Your task to perform on an android device: create a new album in the google photos Image 0: 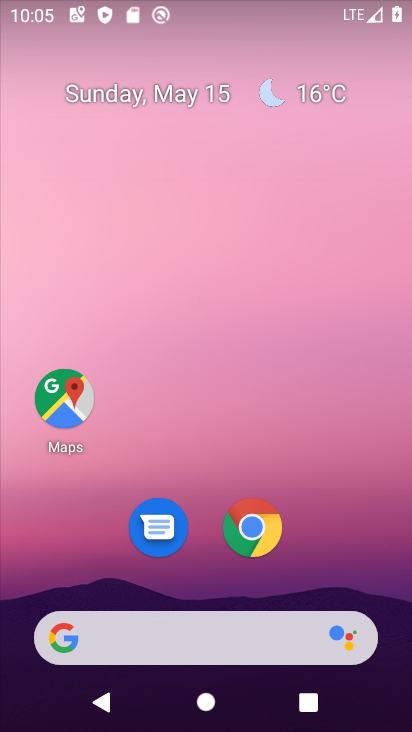
Step 0: drag from (382, 546) to (381, 20)
Your task to perform on an android device: create a new album in the google photos Image 1: 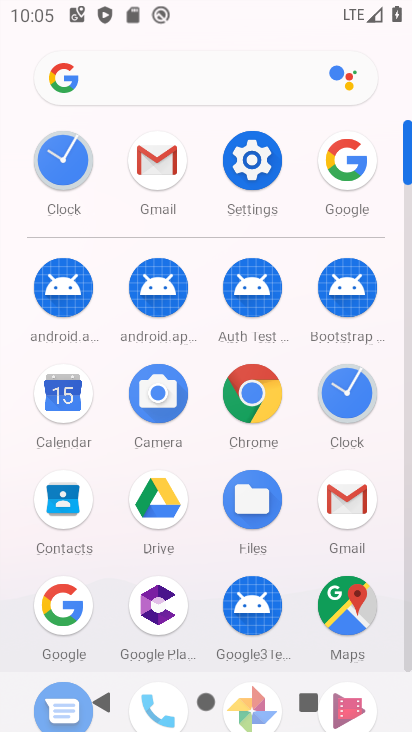
Step 1: click (408, 557)
Your task to perform on an android device: create a new album in the google photos Image 2: 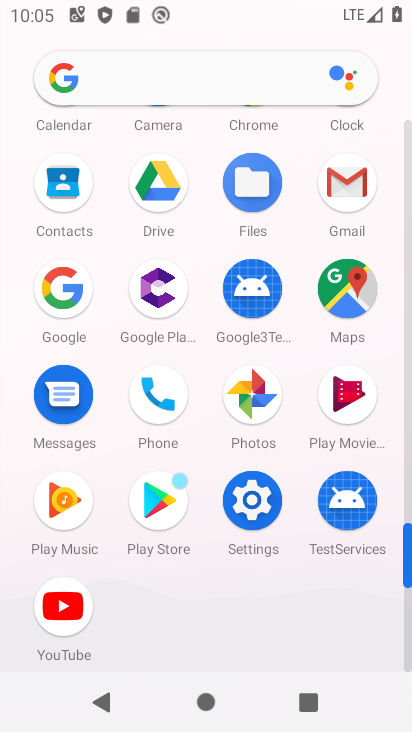
Step 2: click (249, 403)
Your task to perform on an android device: create a new album in the google photos Image 3: 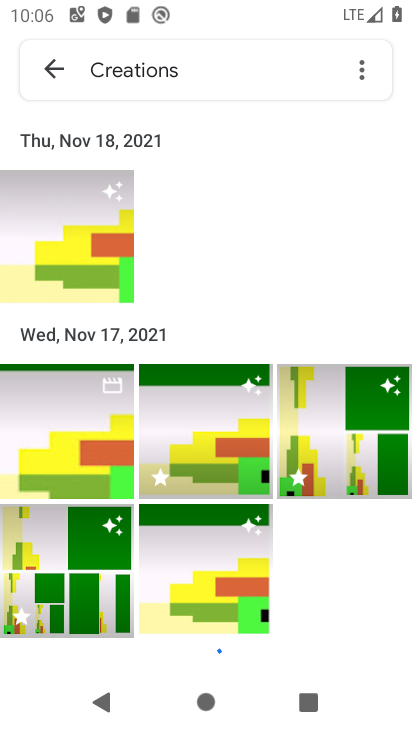
Step 3: click (57, 78)
Your task to perform on an android device: create a new album in the google photos Image 4: 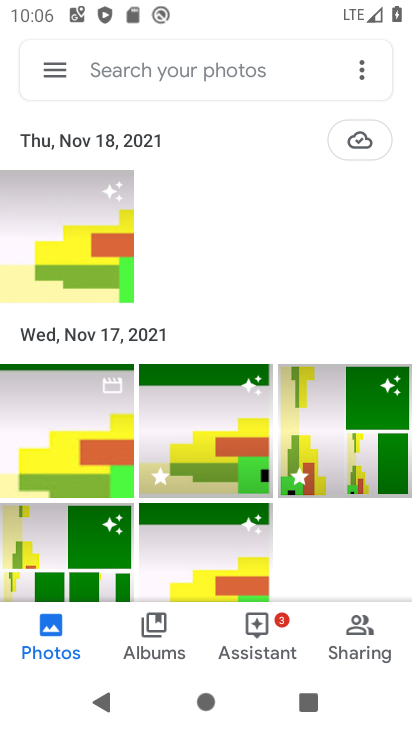
Step 4: click (204, 458)
Your task to perform on an android device: create a new album in the google photos Image 5: 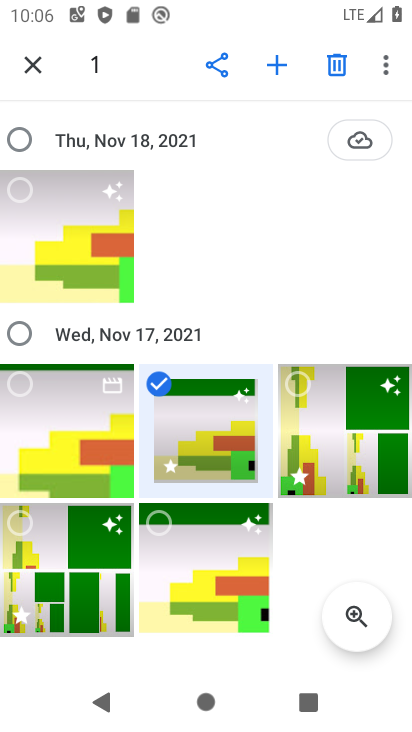
Step 5: click (303, 402)
Your task to perform on an android device: create a new album in the google photos Image 6: 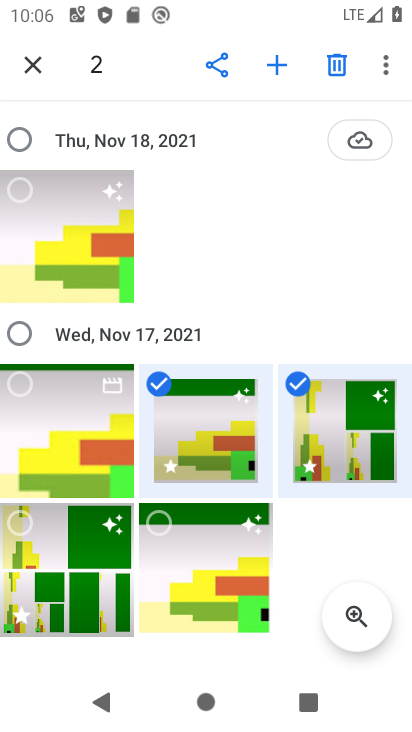
Step 6: click (272, 72)
Your task to perform on an android device: create a new album in the google photos Image 7: 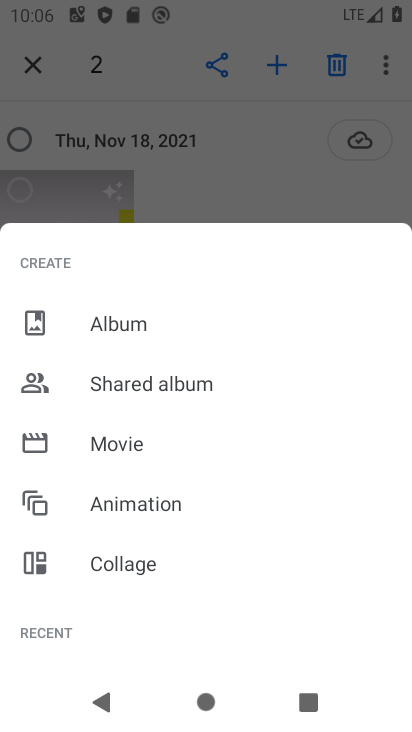
Step 7: click (107, 320)
Your task to perform on an android device: create a new album in the google photos Image 8: 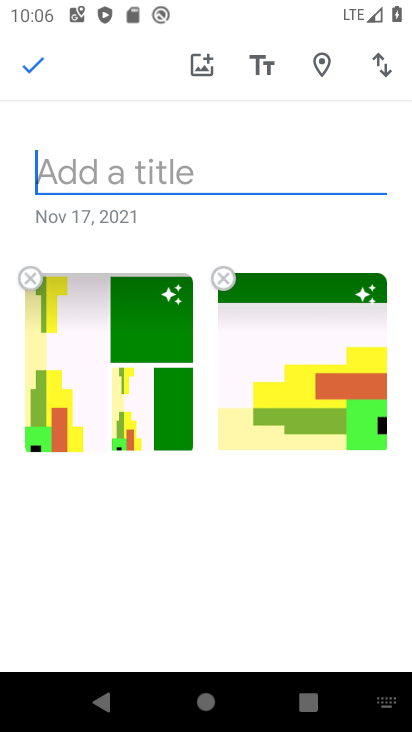
Step 8: click (111, 178)
Your task to perform on an android device: create a new album in the google photos Image 9: 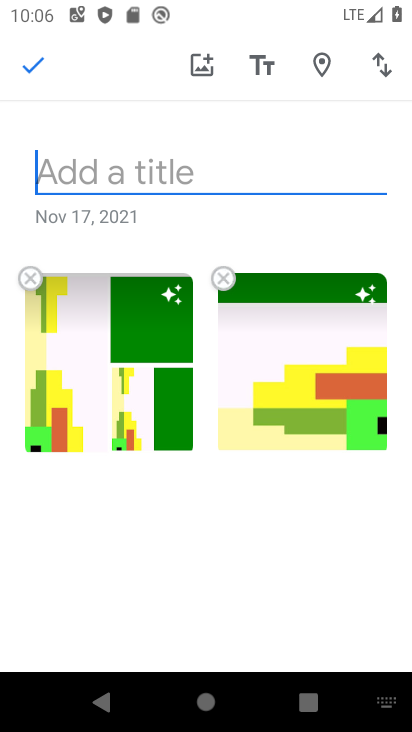
Step 9: type "new 1"
Your task to perform on an android device: create a new album in the google photos Image 10: 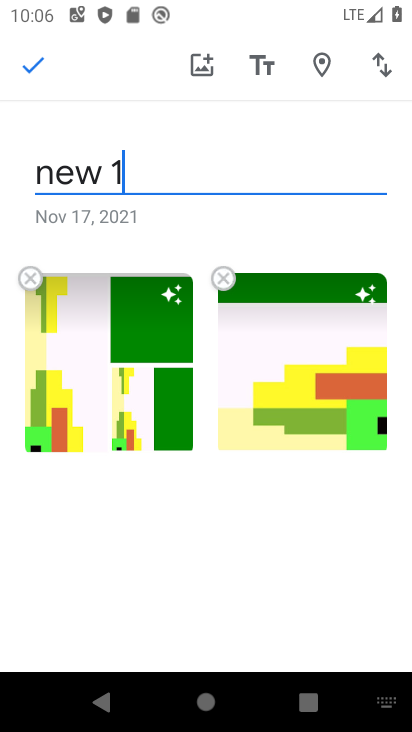
Step 10: click (31, 65)
Your task to perform on an android device: create a new album in the google photos Image 11: 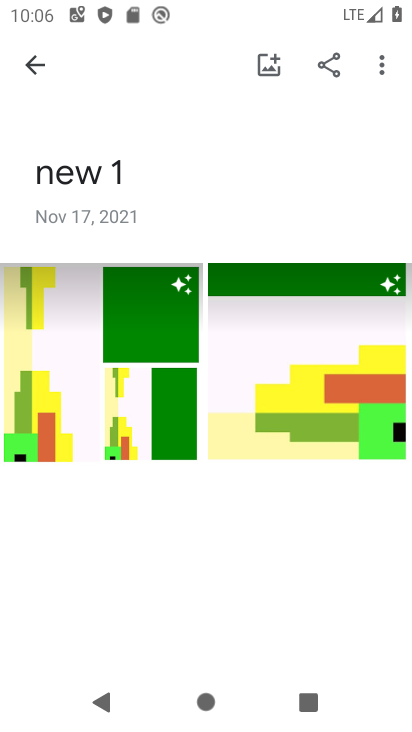
Step 11: task complete